Your task to perform on an android device: open a new tab in the chrome app Image 0: 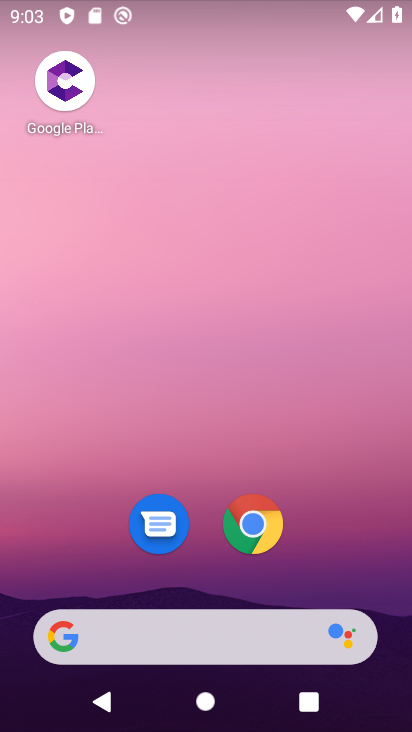
Step 0: click (266, 520)
Your task to perform on an android device: open a new tab in the chrome app Image 1: 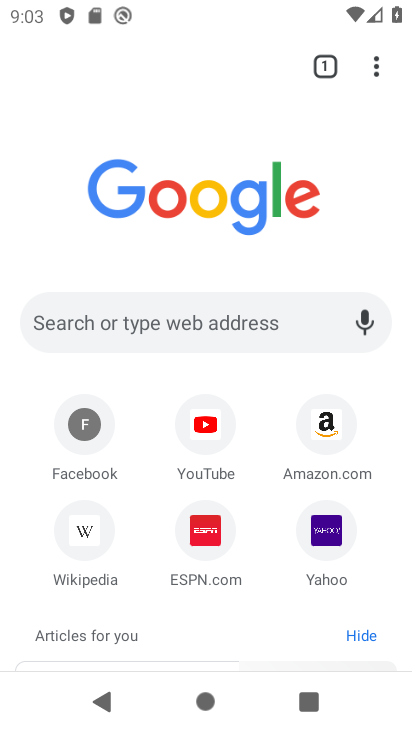
Step 1: click (376, 67)
Your task to perform on an android device: open a new tab in the chrome app Image 2: 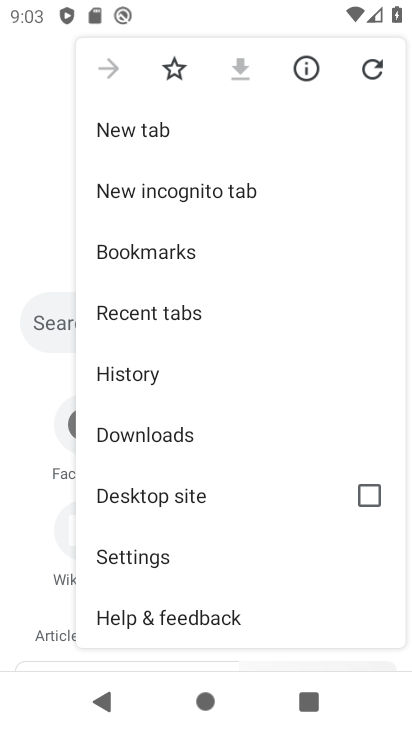
Step 2: click (274, 122)
Your task to perform on an android device: open a new tab in the chrome app Image 3: 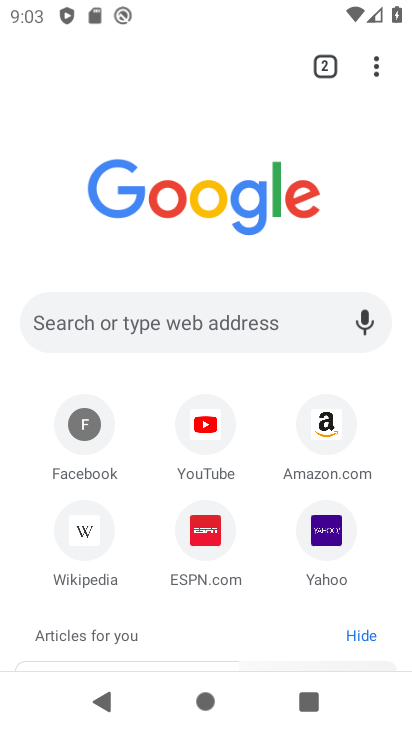
Step 3: task complete